Your task to perform on an android device: Open Google Chrome and open the bookmarks view Image 0: 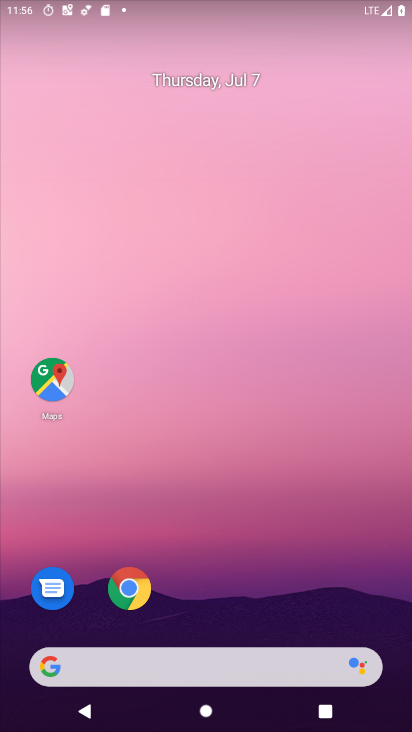
Step 0: click (122, 590)
Your task to perform on an android device: Open Google Chrome and open the bookmarks view Image 1: 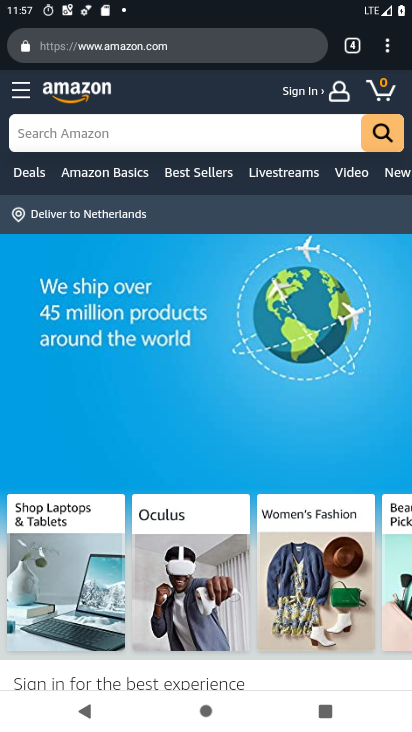
Step 1: task complete